Your task to perform on an android device: Go to accessibility settings Image 0: 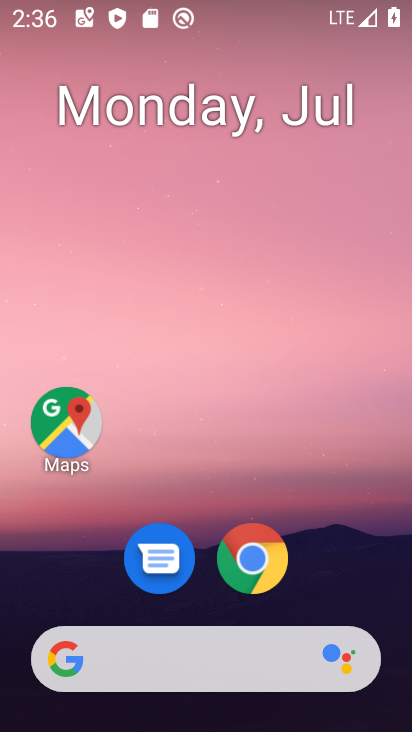
Step 0: press home button
Your task to perform on an android device: Go to accessibility settings Image 1: 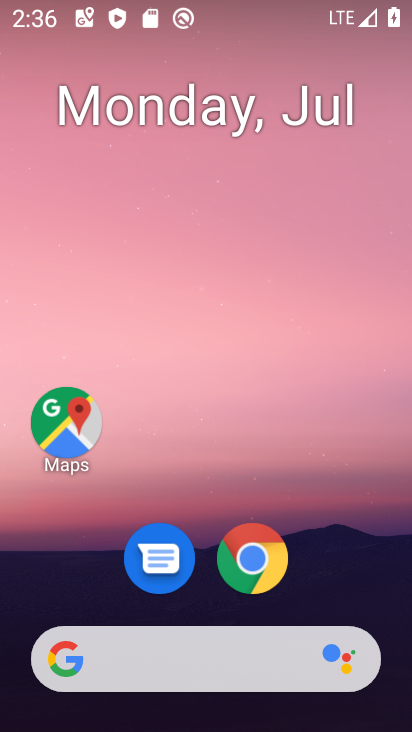
Step 1: drag from (353, 583) to (342, 107)
Your task to perform on an android device: Go to accessibility settings Image 2: 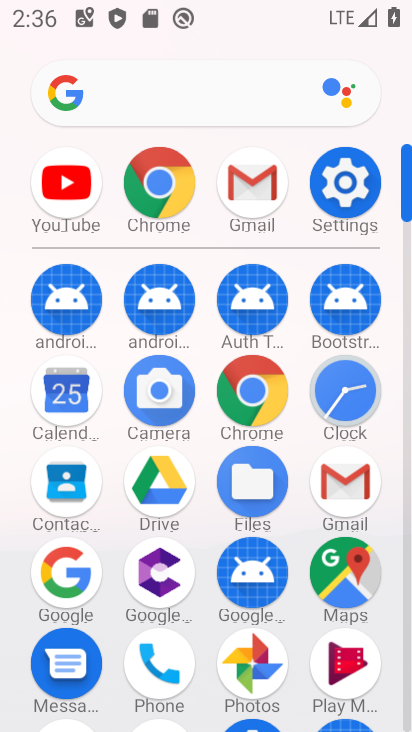
Step 2: click (354, 194)
Your task to perform on an android device: Go to accessibility settings Image 3: 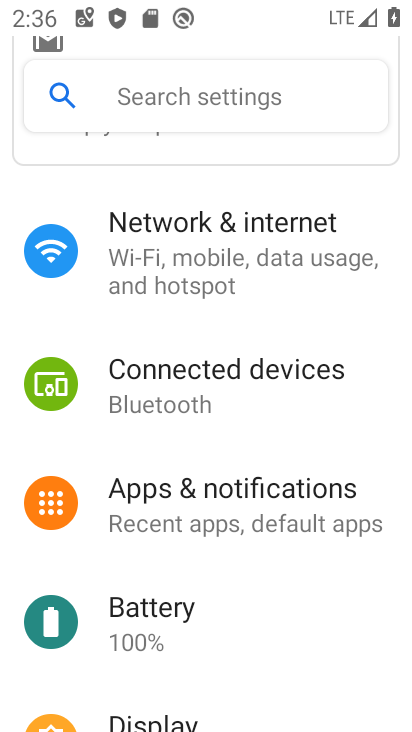
Step 3: drag from (364, 573) to (361, 496)
Your task to perform on an android device: Go to accessibility settings Image 4: 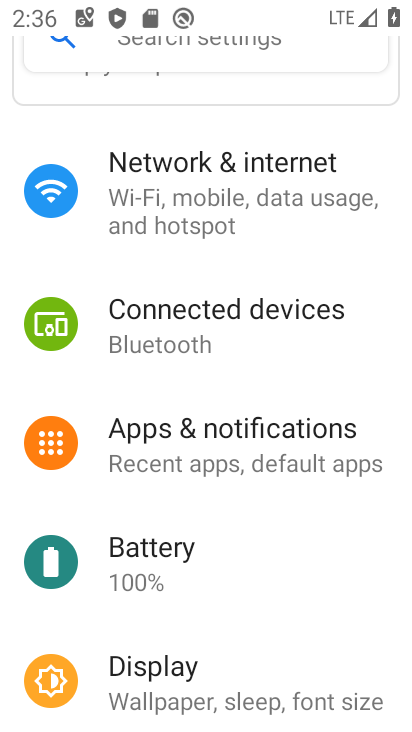
Step 4: drag from (350, 562) to (347, 467)
Your task to perform on an android device: Go to accessibility settings Image 5: 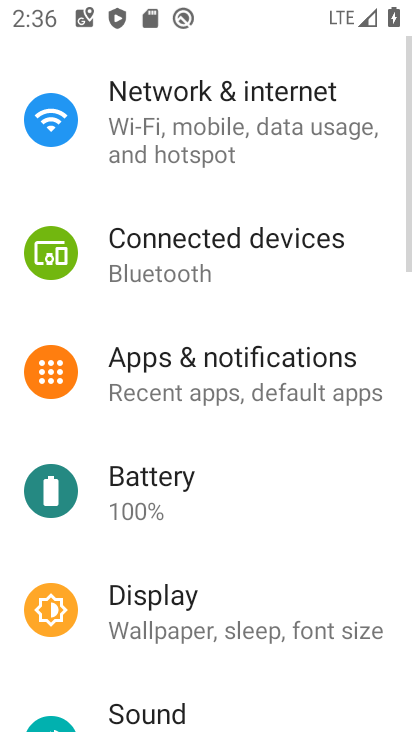
Step 5: drag from (343, 559) to (341, 471)
Your task to perform on an android device: Go to accessibility settings Image 6: 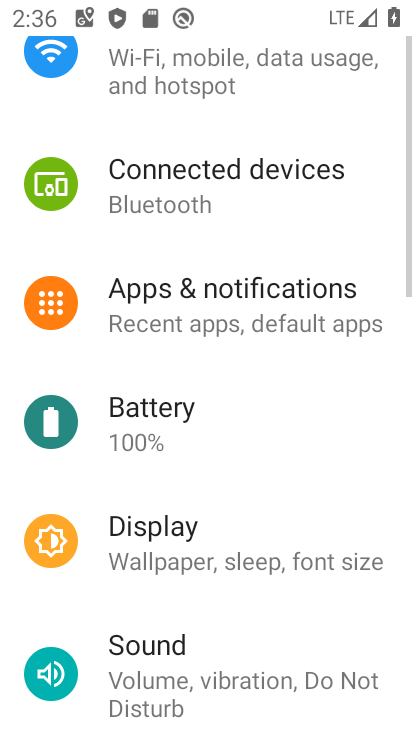
Step 6: drag from (339, 591) to (337, 468)
Your task to perform on an android device: Go to accessibility settings Image 7: 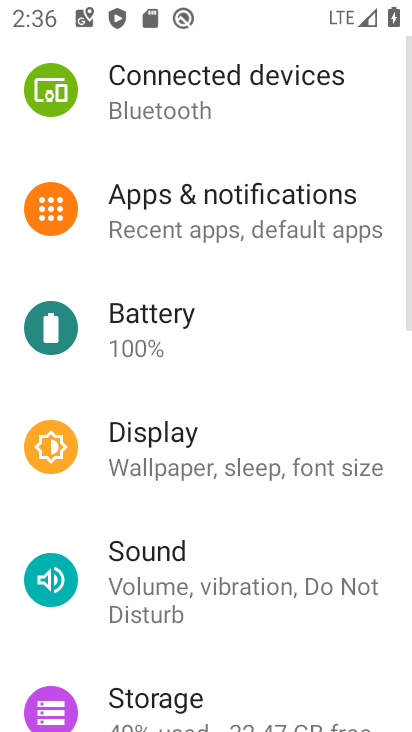
Step 7: drag from (339, 564) to (333, 473)
Your task to perform on an android device: Go to accessibility settings Image 8: 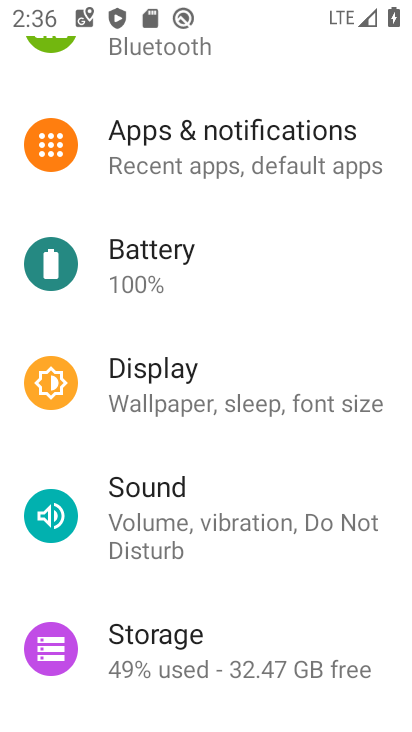
Step 8: drag from (343, 593) to (345, 496)
Your task to perform on an android device: Go to accessibility settings Image 9: 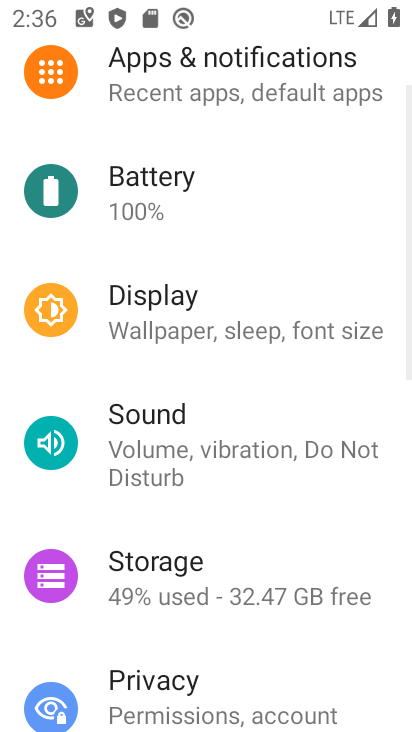
Step 9: drag from (346, 635) to (346, 512)
Your task to perform on an android device: Go to accessibility settings Image 10: 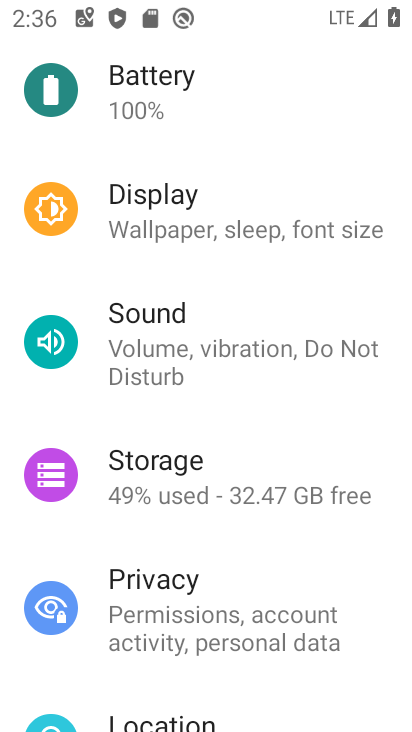
Step 10: drag from (342, 608) to (337, 455)
Your task to perform on an android device: Go to accessibility settings Image 11: 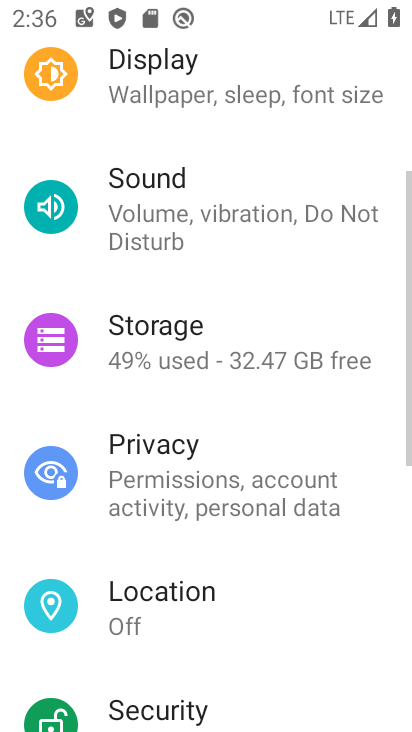
Step 11: drag from (342, 604) to (336, 464)
Your task to perform on an android device: Go to accessibility settings Image 12: 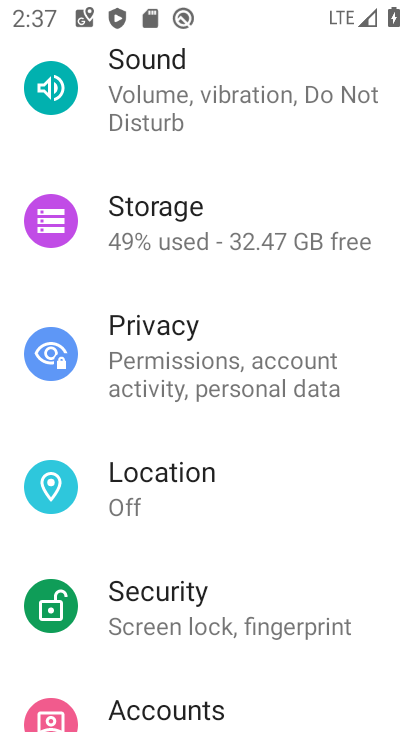
Step 12: drag from (339, 521) to (333, 379)
Your task to perform on an android device: Go to accessibility settings Image 13: 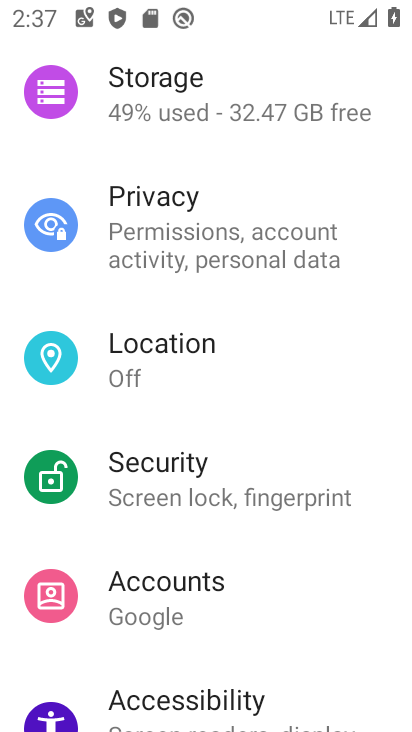
Step 13: drag from (339, 584) to (330, 419)
Your task to perform on an android device: Go to accessibility settings Image 14: 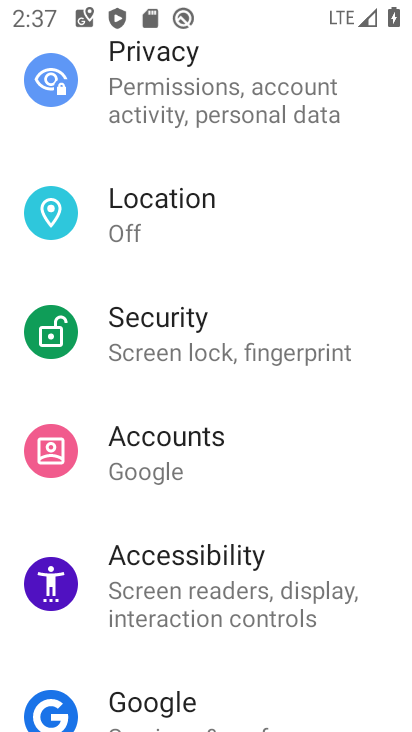
Step 14: drag from (345, 533) to (329, 438)
Your task to perform on an android device: Go to accessibility settings Image 15: 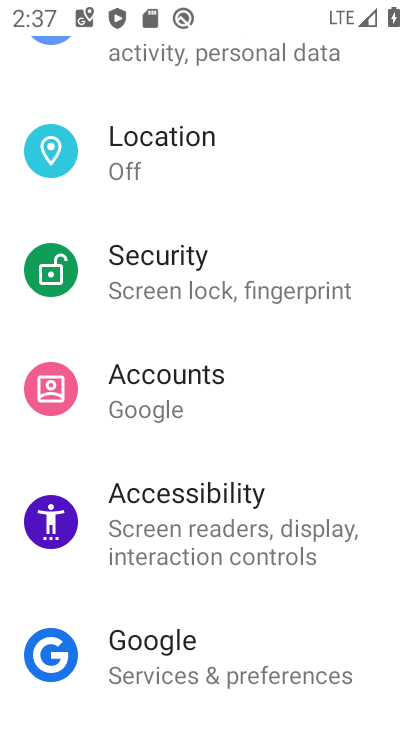
Step 15: click (316, 514)
Your task to perform on an android device: Go to accessibility settings Image 16: 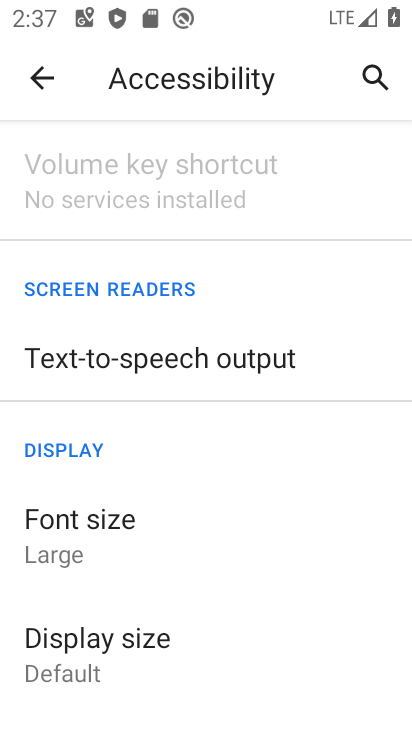
Step 16: task complete